Your task to perform on an android device: When is my next appointment? Image 0: 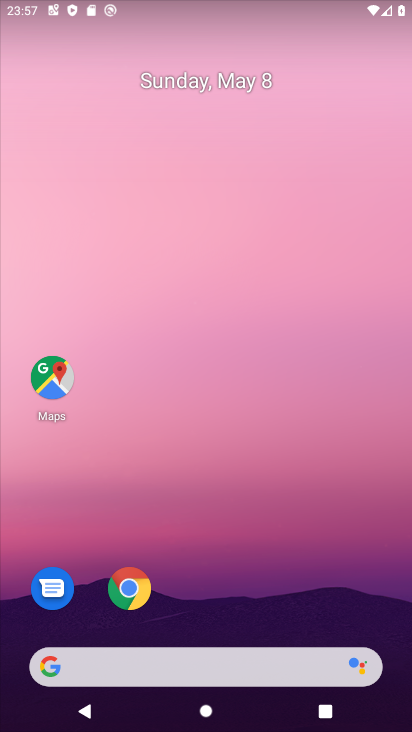
Step 0: click (140, 69)
Your task to perform on an android device: When is my next appointment? Image 1: 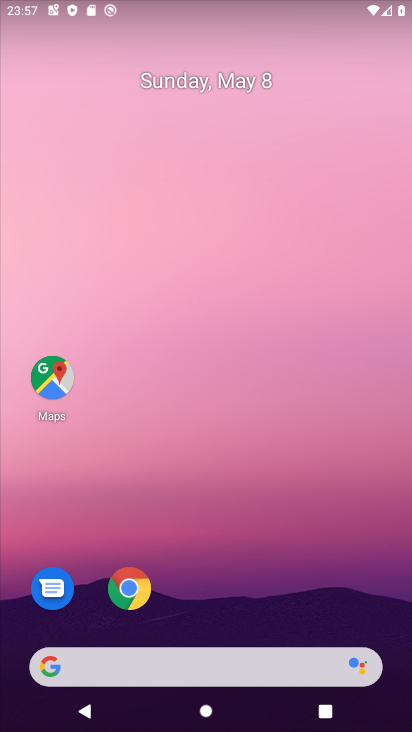
Step 1: drag from (257, 601) to (197, 122)
Your task to perform on an android device: When is my next appointment? Image 2: 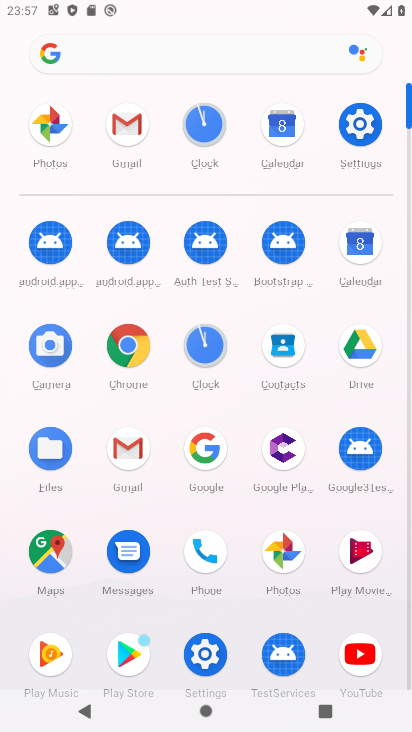
Step 2: click (351, 246)
Your task to perform on an android device: When is my next appointment? Image 3: 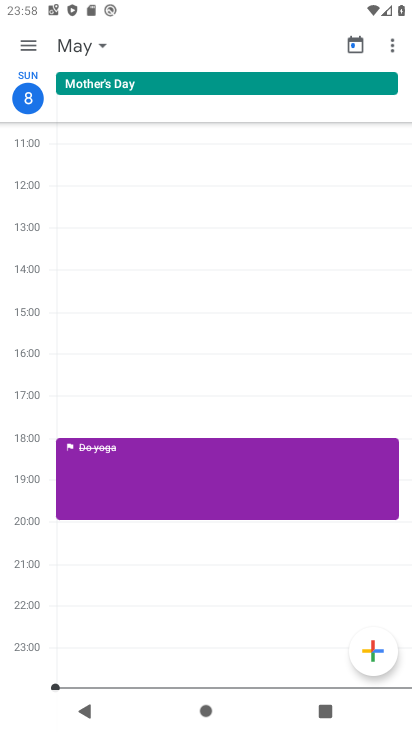
Step 3: task complete